Your task to perform on an android device: Open Google Maps Image 0: 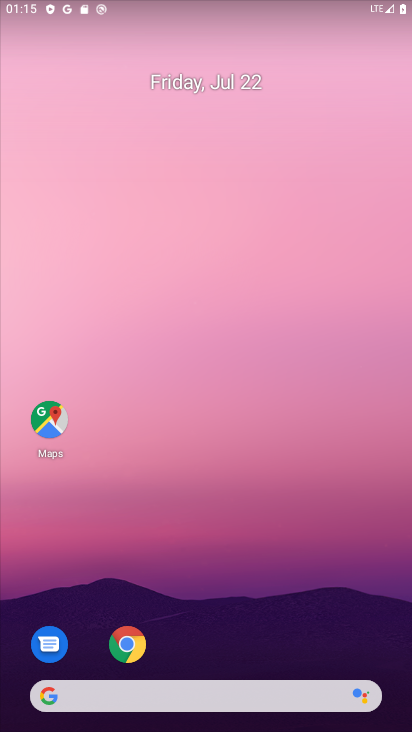
Step 0: click (49, 420)
Your task to perform on an android device: Open Google Maps Image 1: 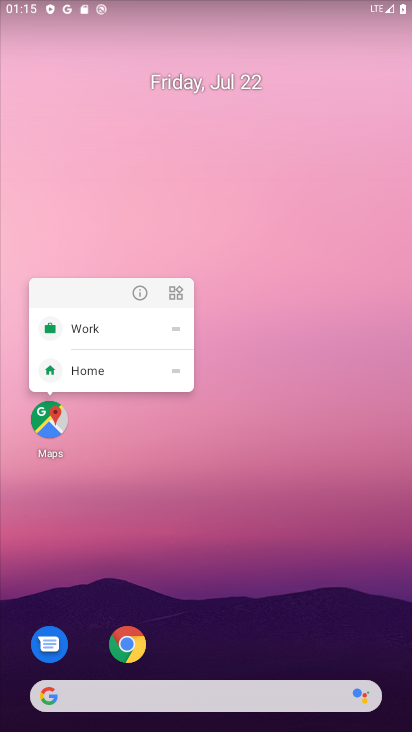
Step 1: click (49, 420)
Your task to perform on an android device: Open Google Maps Image 2: 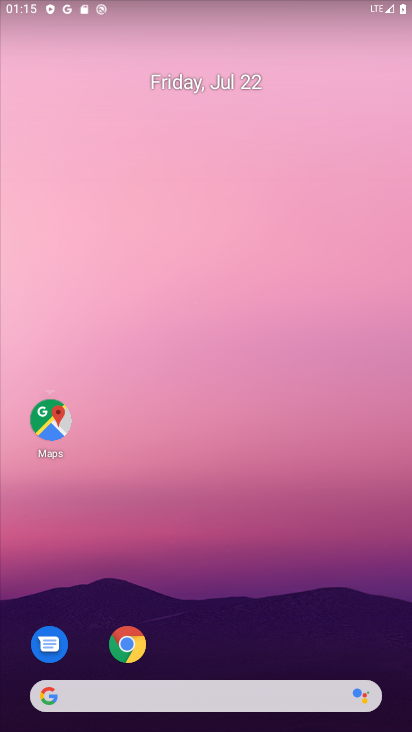
Step 2: click (49, 420)
Your task to perform on an android device: Open Google Maps Image 3: 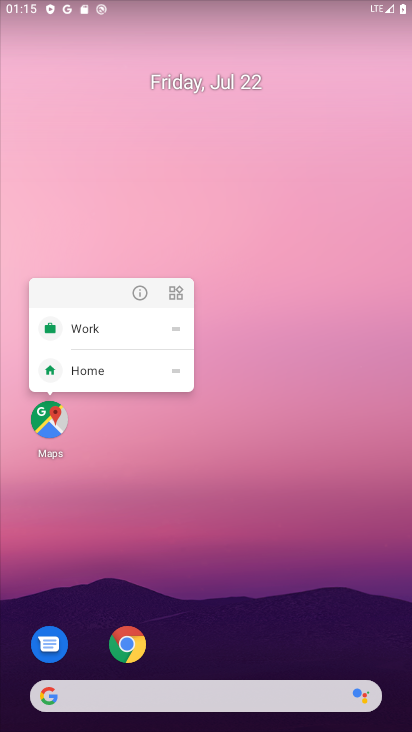
Step 3: click (49, 420)
Your task to perform on an android device: Open Google Maps Image 4: 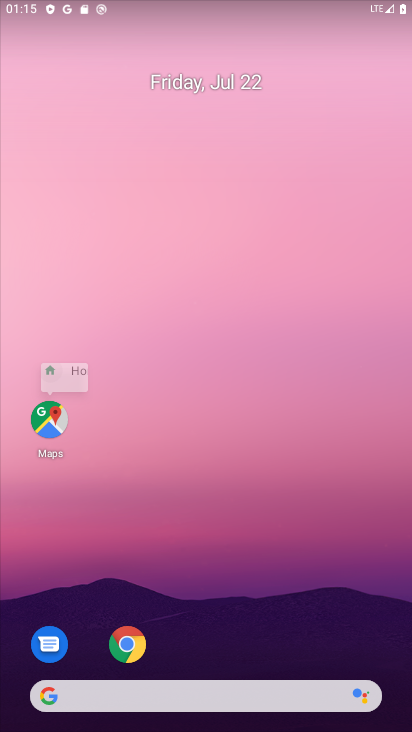
Step 4: click (49, 420)
Your task to perform on an android device: Open Google Maps Image 5: 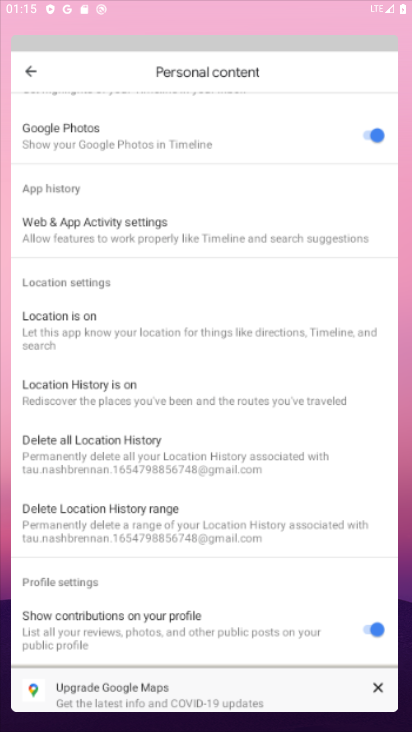
Step 5: click (49, 420)
Your task to perform on an android device: Open Google Maps Image 6: 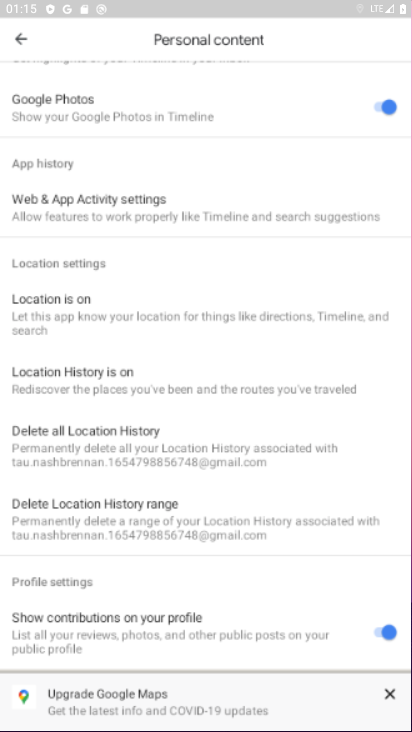
Step 6: click (49, 420)
Your task to perform on an android device: Open Google Maps Image 7: 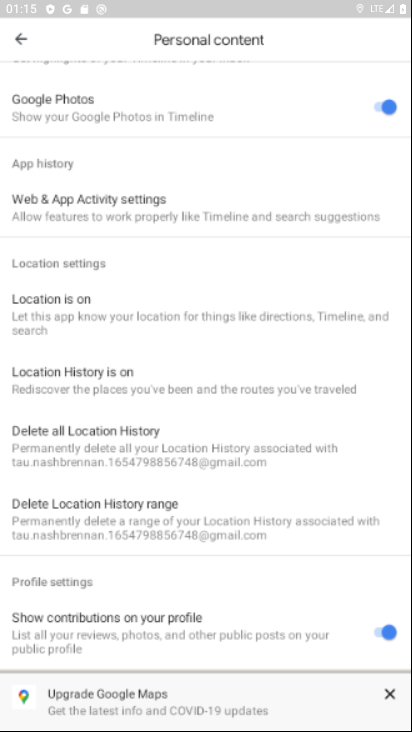
Step 7: click (49, 420)
Your task to perform on an android device: Open Google Maps Image 8: 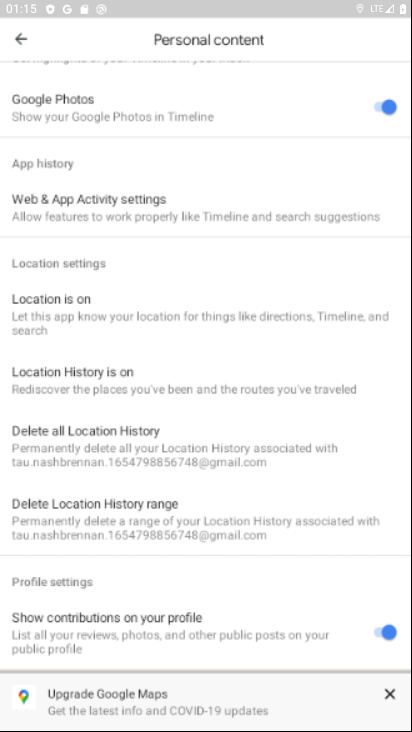
Step 8: click (49, 420)
Your task to perform on an android device: Open Google Maps Image 9: 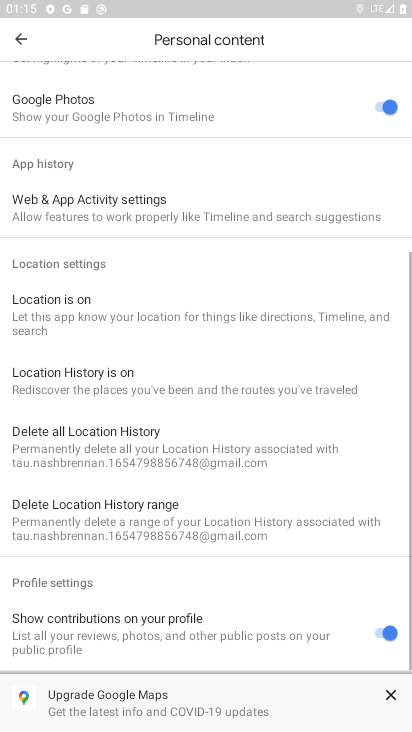
Step 9: click (24, 35)
Your task to perform on an android device: Open Google Maps Image 10: 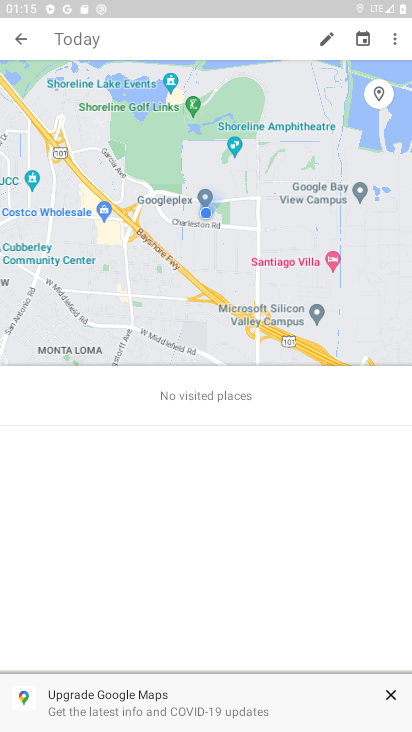
Step 10: click (21, 36)
Your task to perform on an android device: Open Google Maps Image 11: 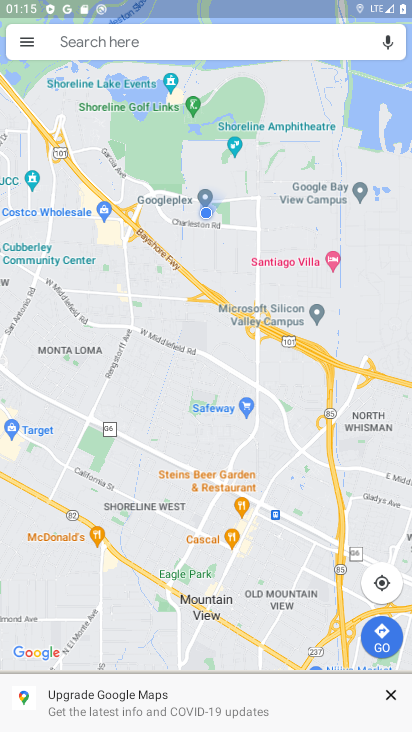
Step 11: task complete